Your task to perform on an android device: open app "Reddit" (install if not already installed) Image 0: 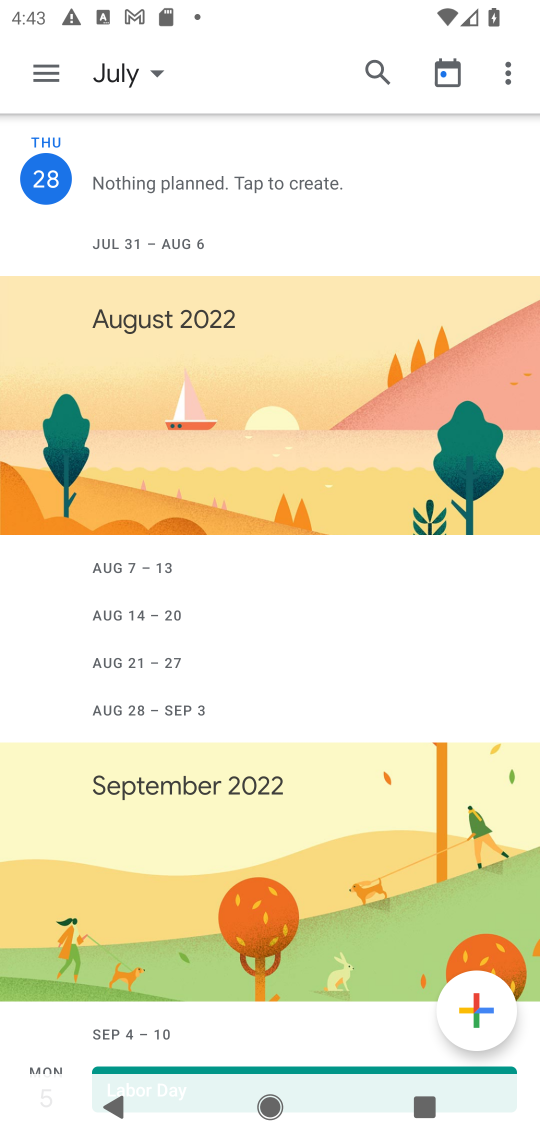
Step 0: press home button
Your task to perform on an android device: open app "Reddit" (install if not already installed) Image 1: 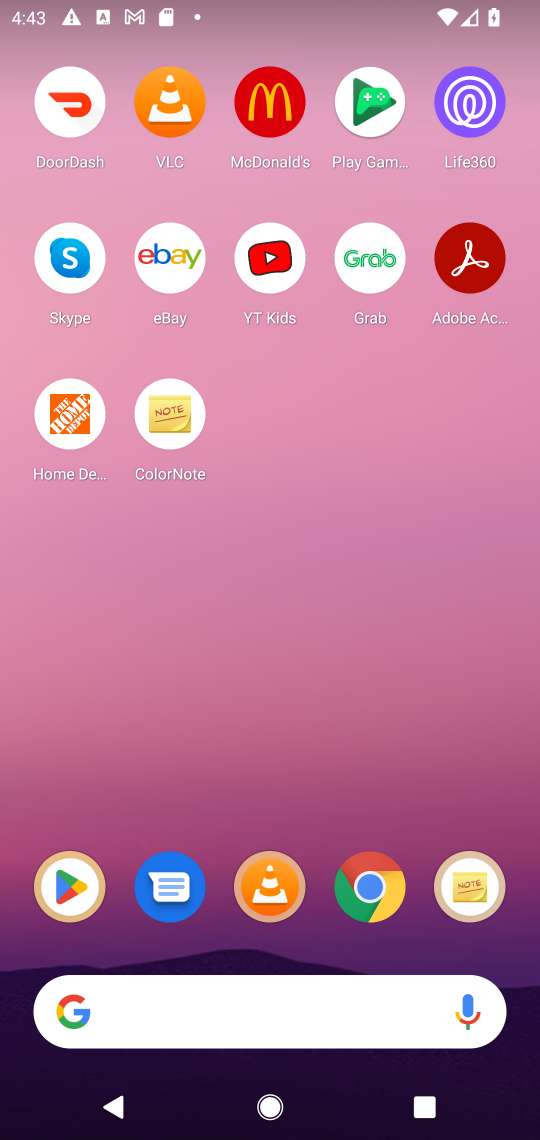
Step 1: click (57, 887)
Your task to perform on an android device: open app "Reddit" (install if not already installed) Image 2: 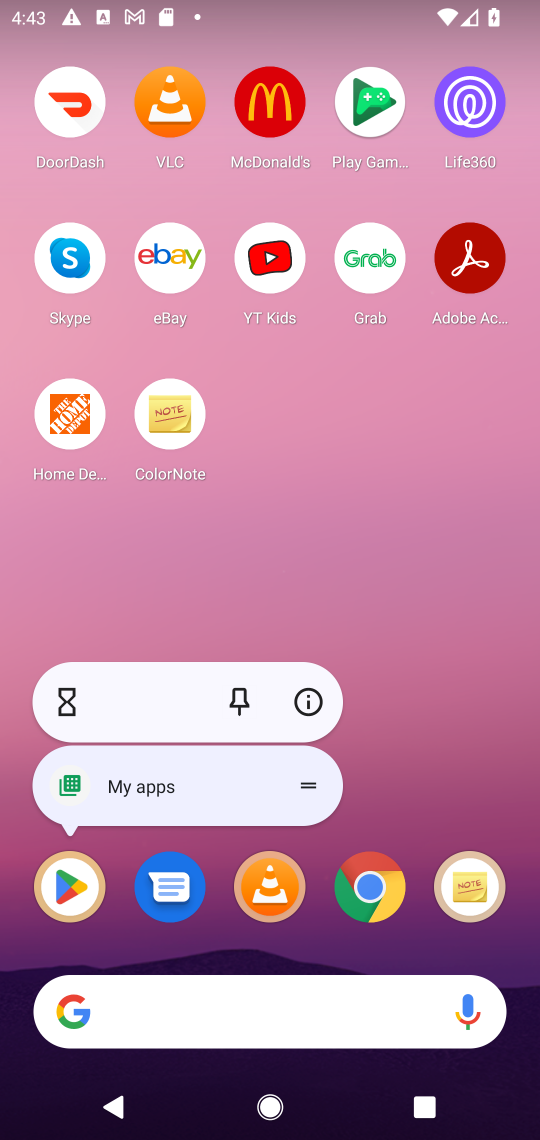
Step 2: click (57, 876)
Your task to perform on an android device: open app "Reddit" (install if not already installed) Image 3: 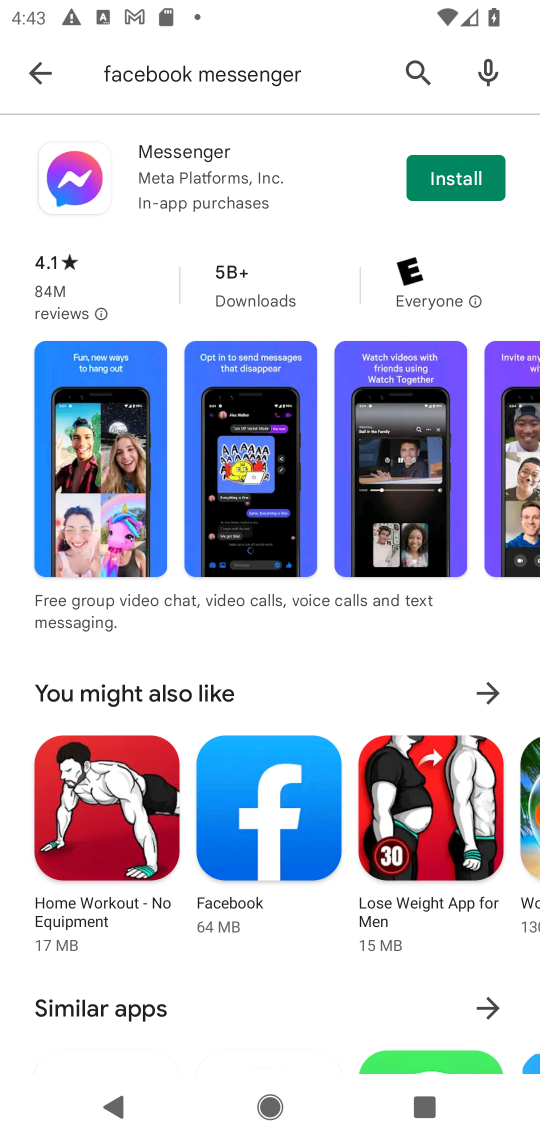
Step 3: click (191, 79)
Your task to perform on an android device: open app "Reddit" (install if not already installed) Image 4: 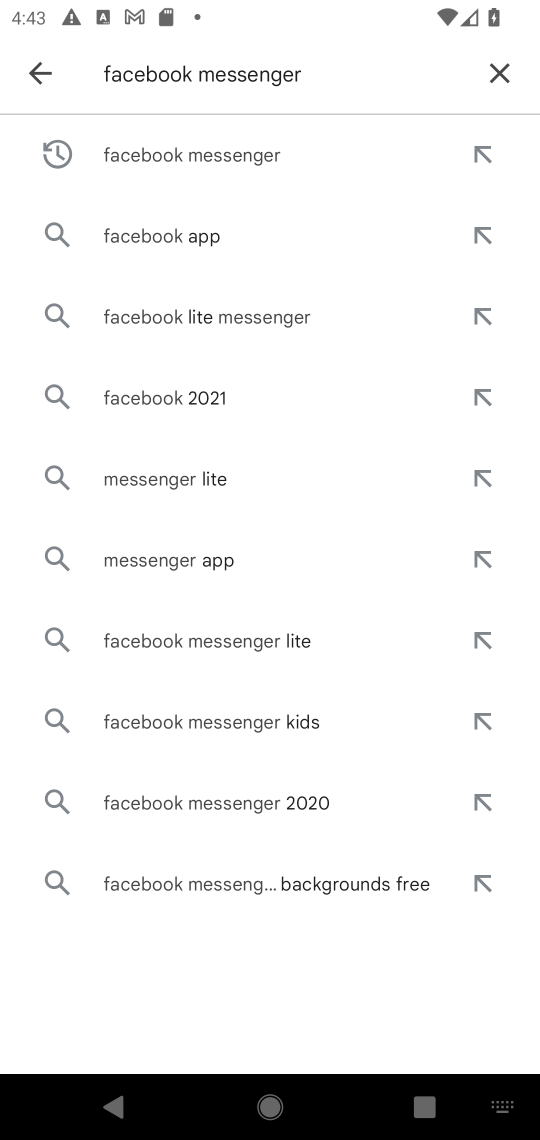
Step 4: click (505, 84)
Your task to perform on an android device: open app "Reddit" (install if not already installed) Image 5: 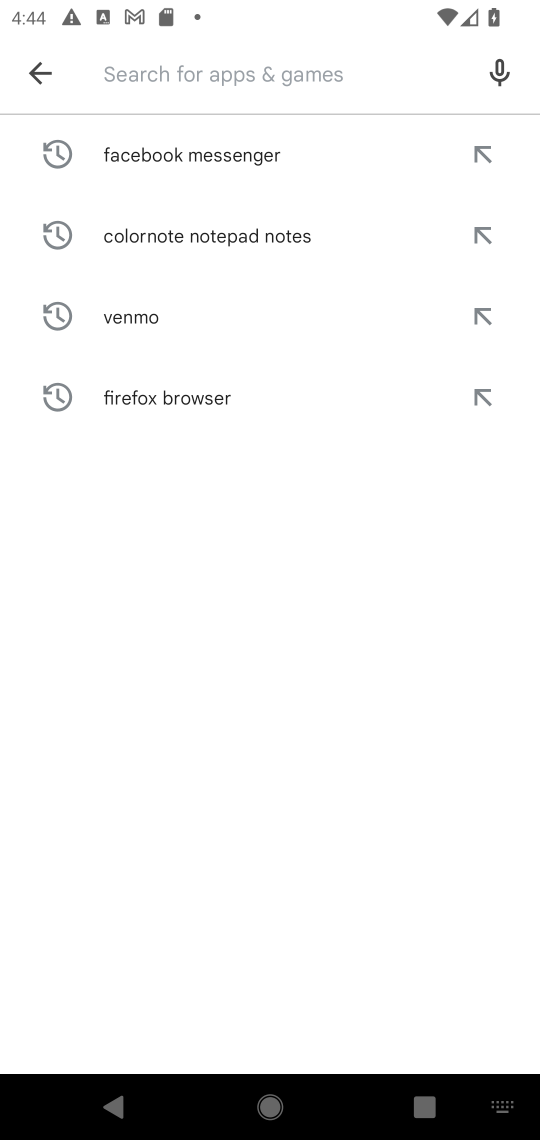
Step 5: type "Reddit"
Your task to perform on an android device: open app "Reddit" (install if not already installed) Image 6: 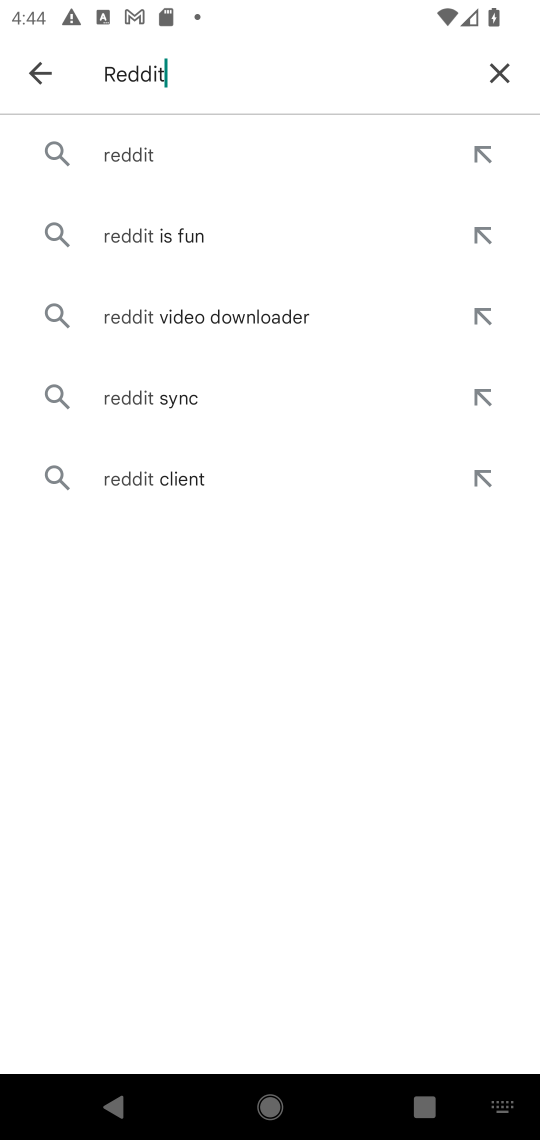
Step 6: click (148, 136)
Your task to perform on an android device: open app "Reddit" (install if not already installed) Image 7: 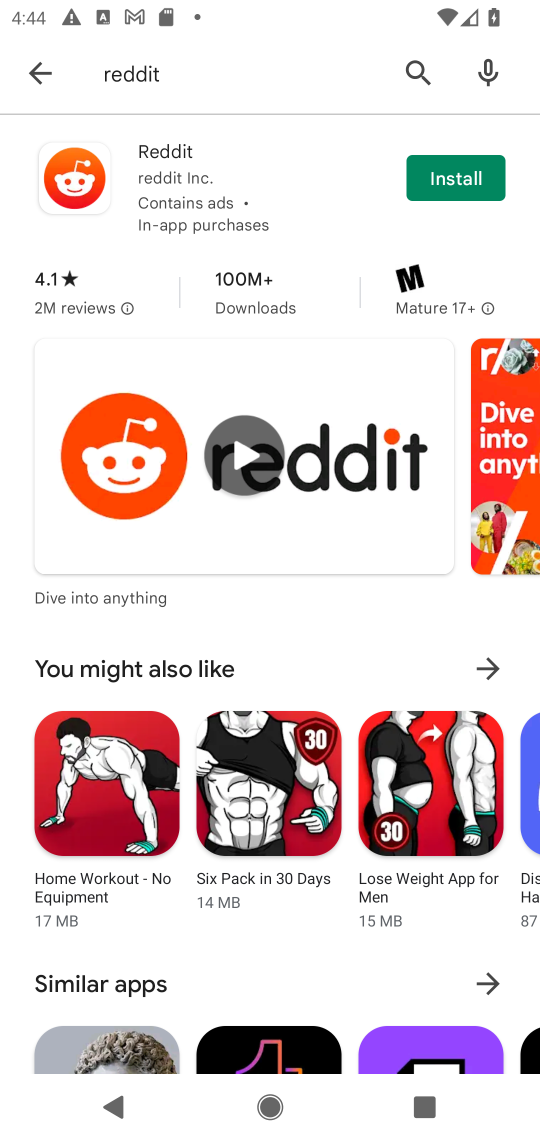
Step 7: click (462, 180)
Your task to perform on an android device: open app "Reddit" (install if not already installed) Image 8: 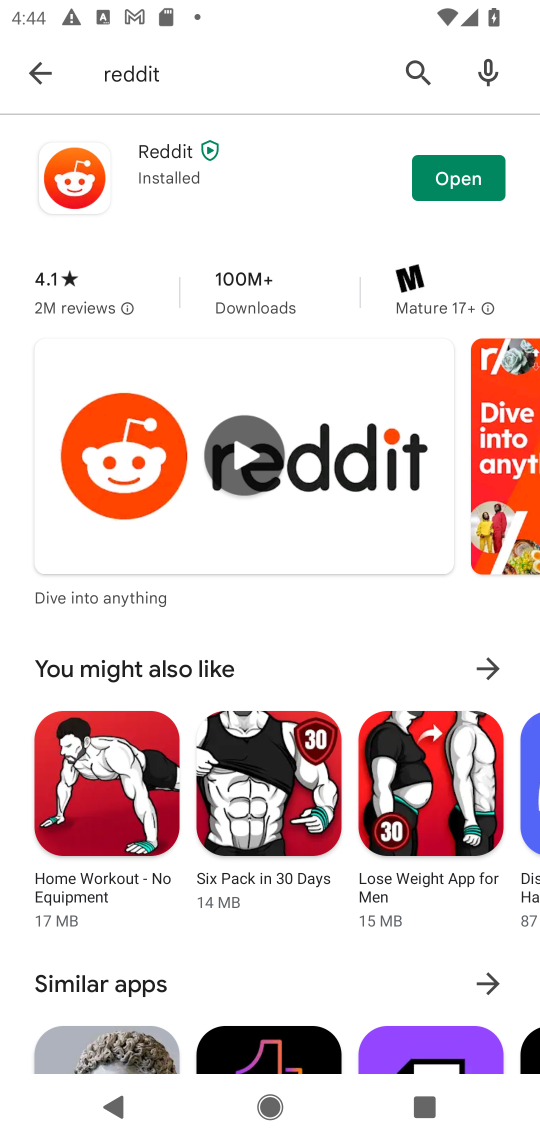
Step 8: click (472, 173)
Your task to perform on an android device: open app "Reddit" (install if not already installed) Image 9: 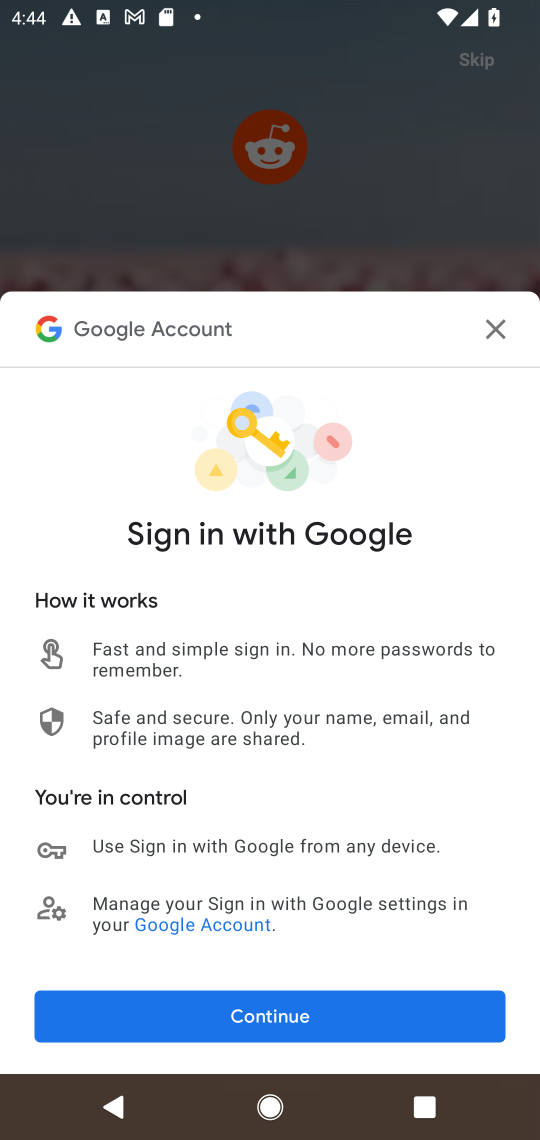
Step 9: task complete